Your task to perform on an android device: open app "Duolingo: language lessons" (install if not already installed) Image 0: 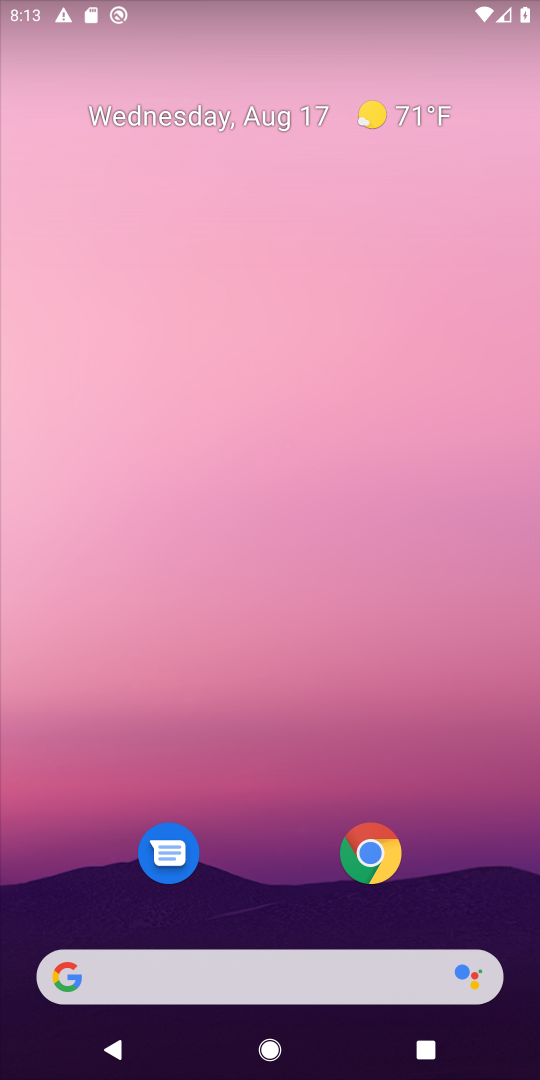
Step 0: drag from (306, 855) to (325, 242)
Your task to perform on an android device: open app "Duolingo: language lessons" (install if not already installed) Image 1: 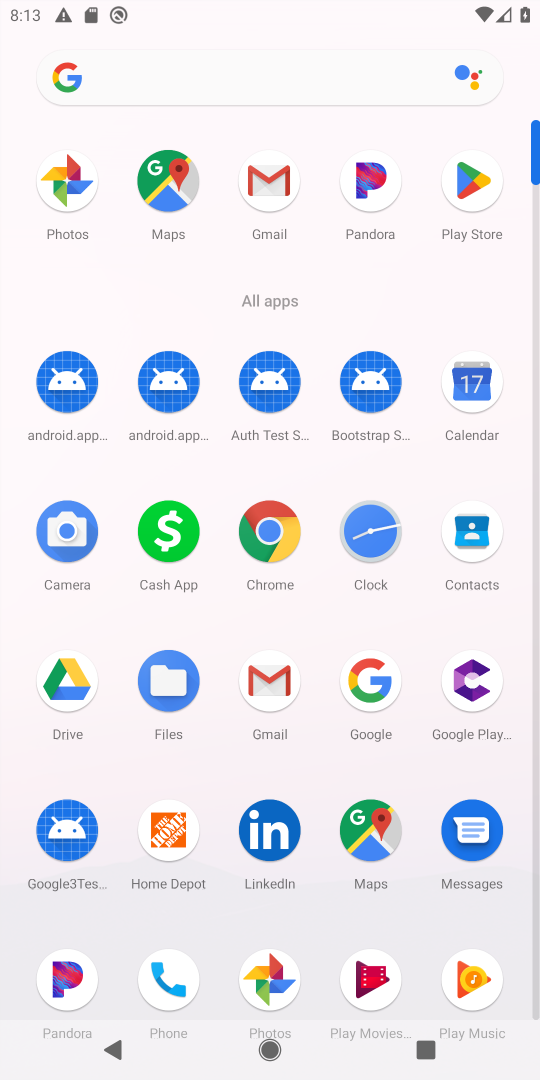
Step 1: click (464, 174)
Your task to perform on an android device: open app "Duolingo: language lessons" (install if not already installed) Image 2: 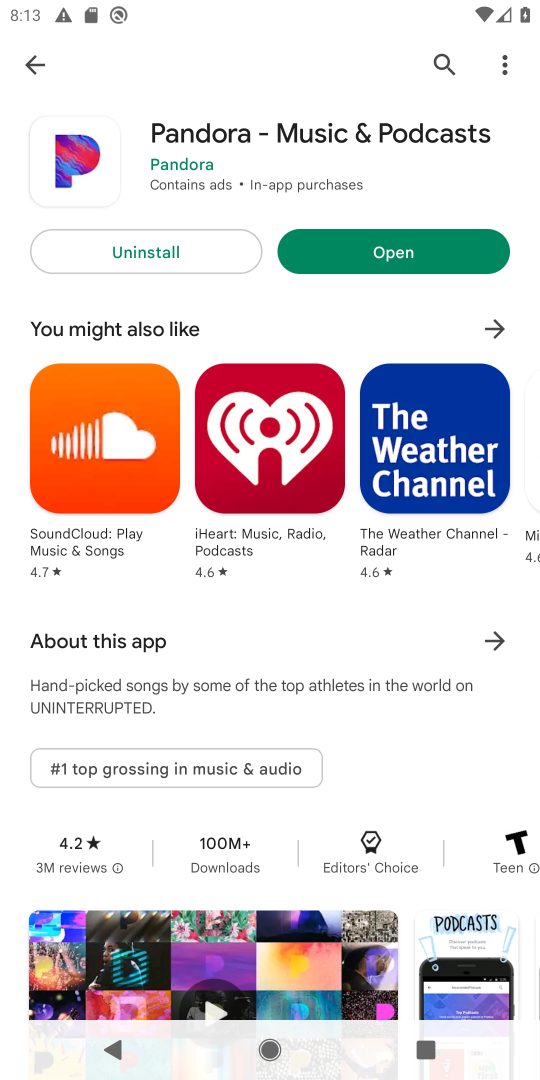
Step 2: click (448, 67)
Your task to perform on an android device: open app "Duolingo: language lessons" (install if not already installed) Image 3: 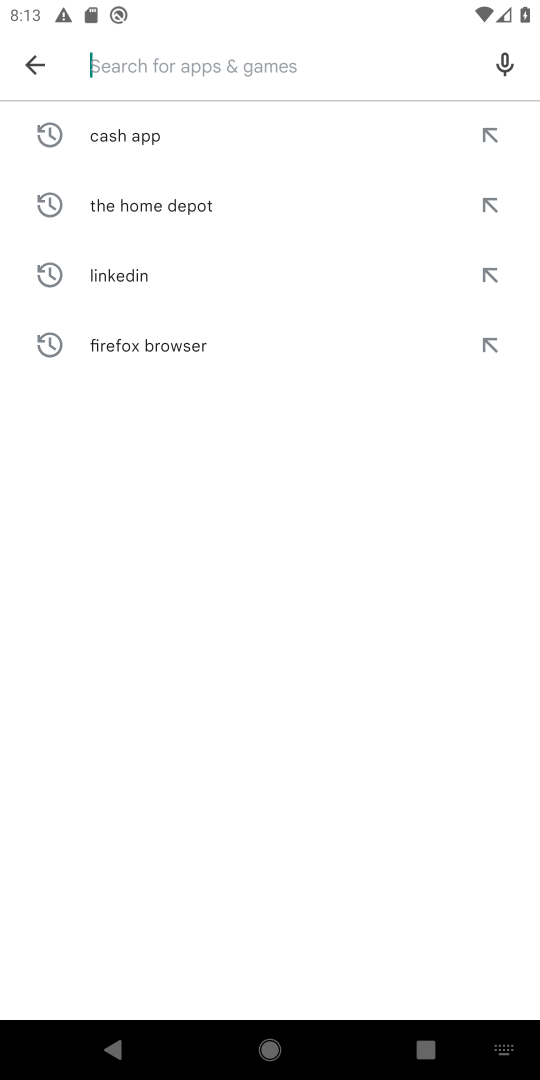
Step 3: type "Duolingo: language lessons"
Your task to perform on an android device: open app "Duolingo: language lessons" (install if not already installed) Image 4: 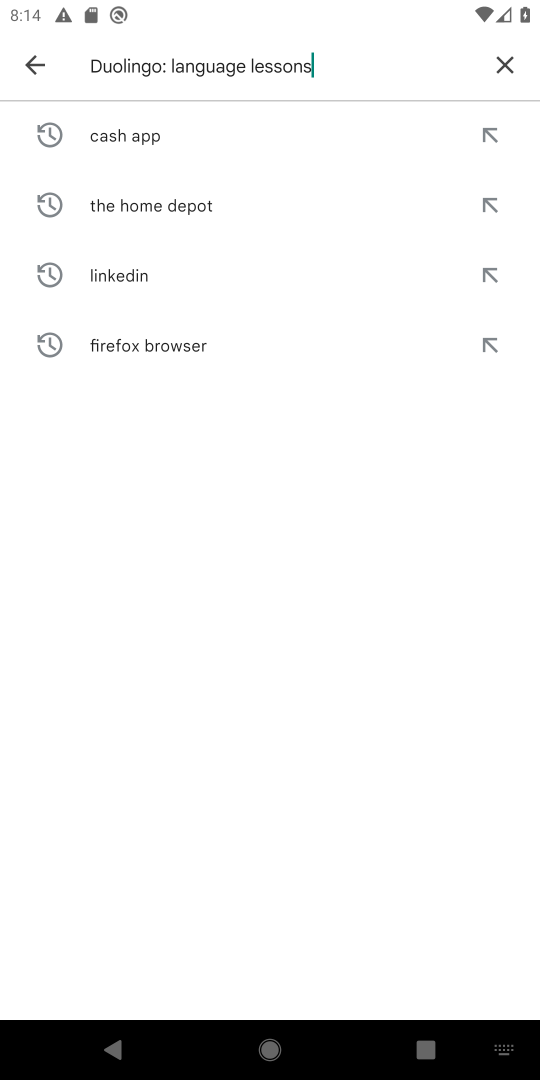
Step 4: type ""
Your task to perform on an android device: open app "Duolingo: language lessons" (install if not already installed) Image 5: 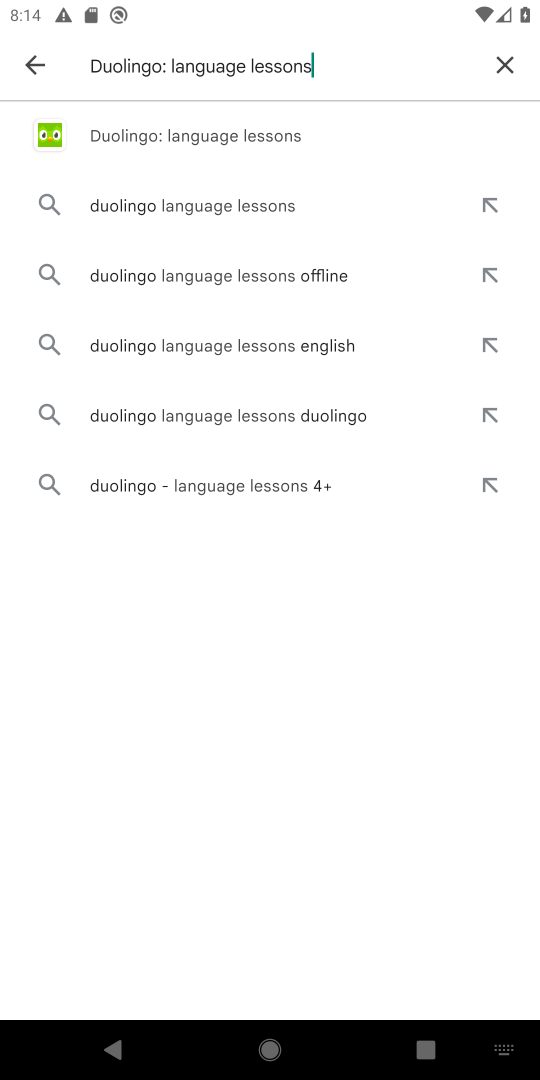
Step 5: click (187, 128)
Your task to perform on an android device: open app "Duolingo: language lessons" (install if not already installed) Image 6: 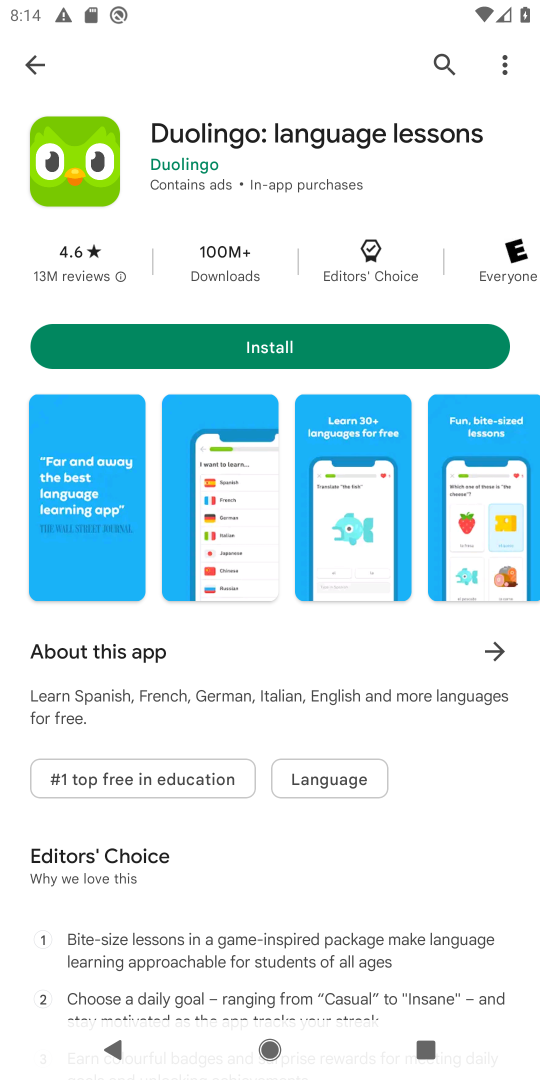
Step 6: click (360, 331)
Your task to perform on an android device: open app "Duolingo: language lessons" (install if not already installed) Image 7: 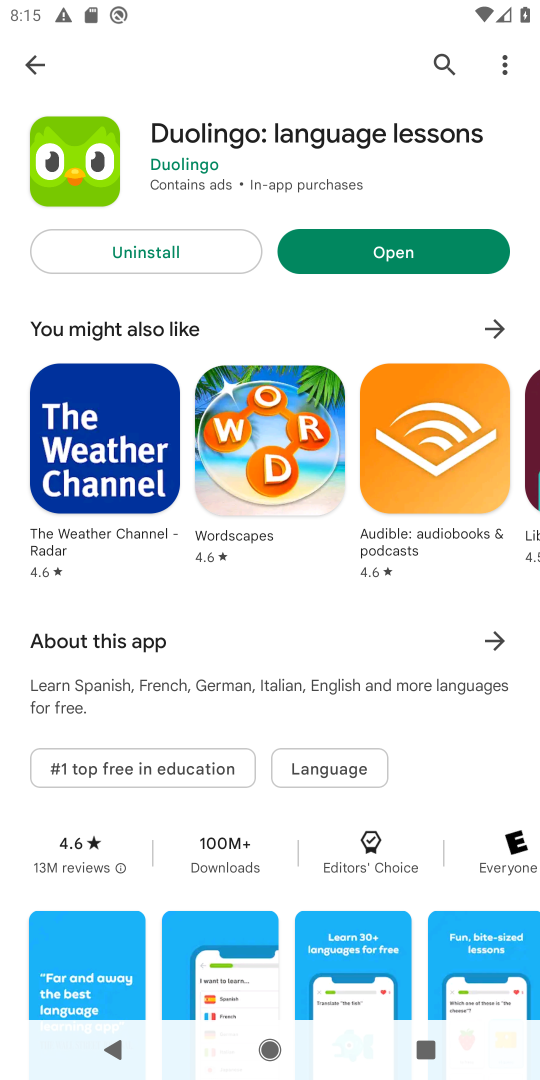
Step 7: click (406, 256)
Your task to perform on an android device: open app "Duolingo: language lessons" (install if not already installed) Image 8: 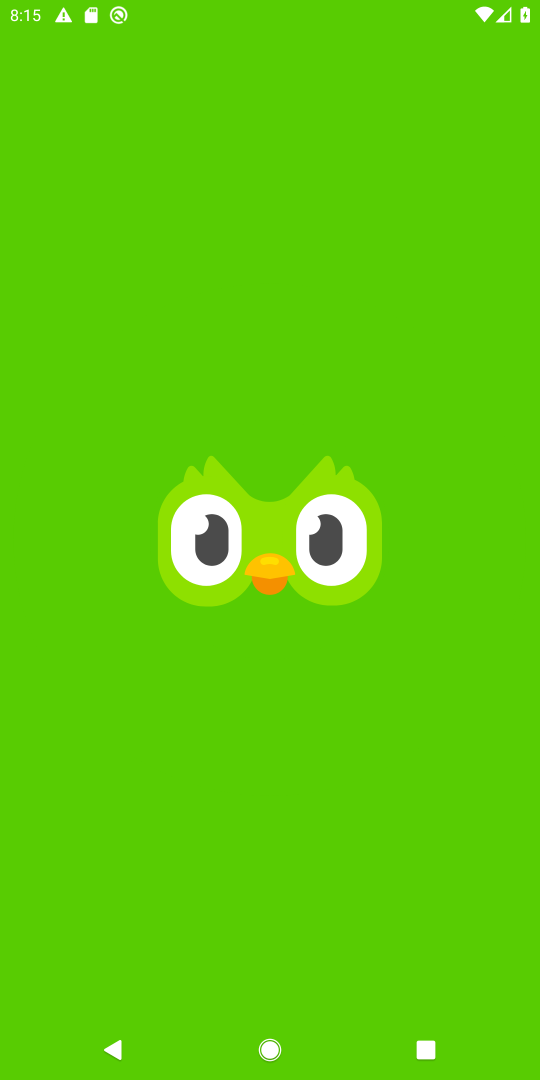
Step 8: task complete